Your task to perform on an android device: allow notifications from all sites in the chrome app Image 0: 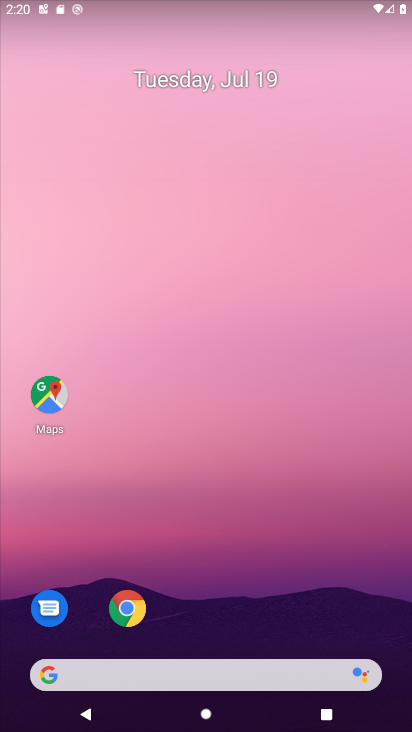
Step 0: drag from (262, 623) to (217, 271)
Your task to perform on an android device: allow notifications from all sites in the chrome app Image 1: 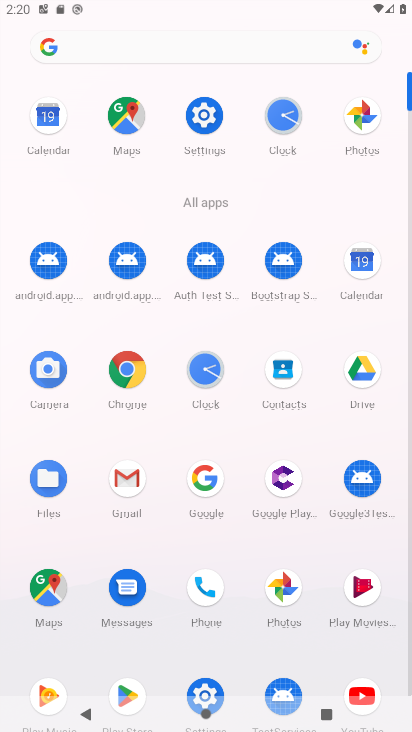
Step 1: click (135, 384)
Your task to perform on an android device: allow notifications from all sites in the chrome app Image 2: 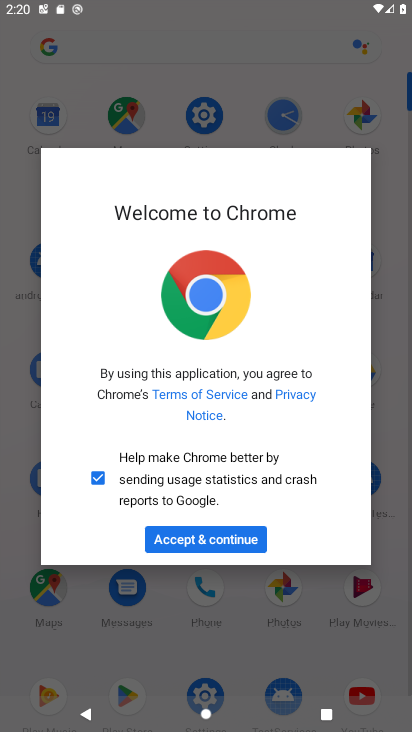
Step 2: click (339, 689)
Your task to perform on an android device: allow notifications from all sites in the chrome app Image 3: 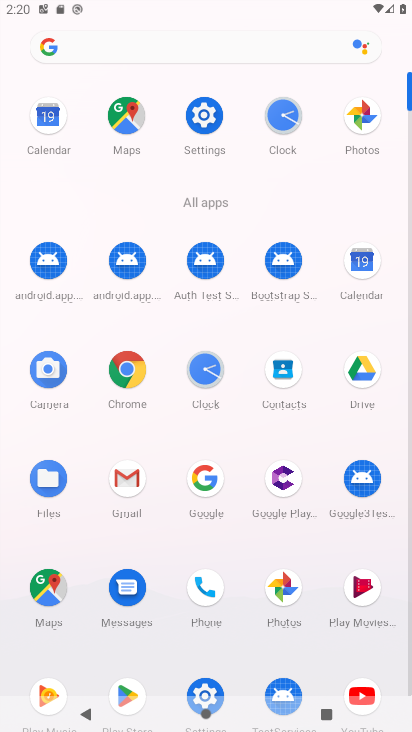
Step 3: click (128, 382)
Your task to perform on an android device: allow notifications from all sites in the chrome app Image 4: 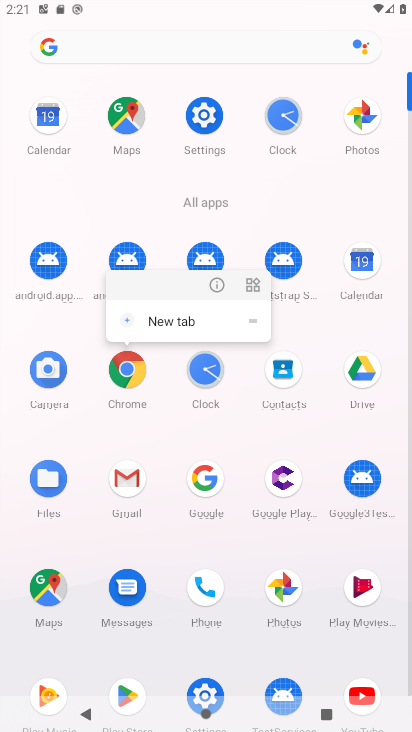
Step 4: click (215, 278)
Your task to perform on an android device: allow notifications from all sites in the chrome app Image 5: 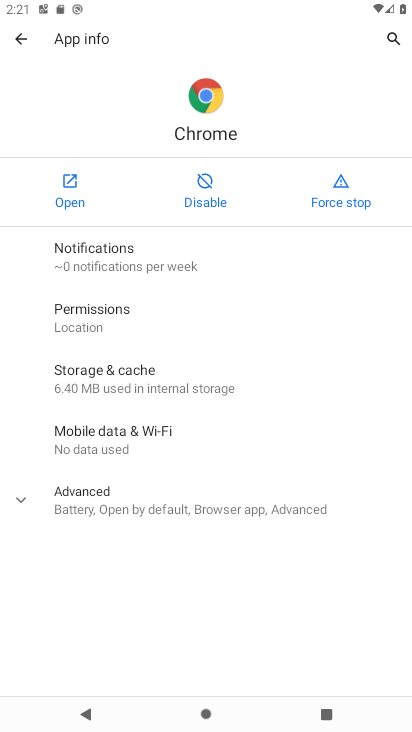
Step 5: click (133, 251)
Your task to perform on an android device: allow notifications from all sites in the chrome app Image 6: 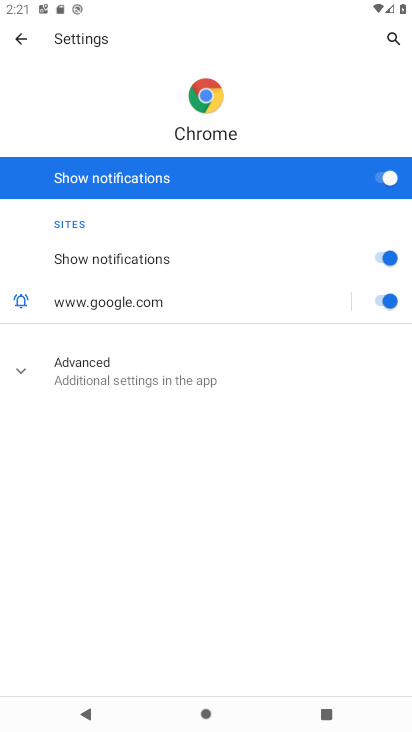
Step 6: task complete